Your task to perform on an android device: stop showing notifications on the lock screen Image 0: 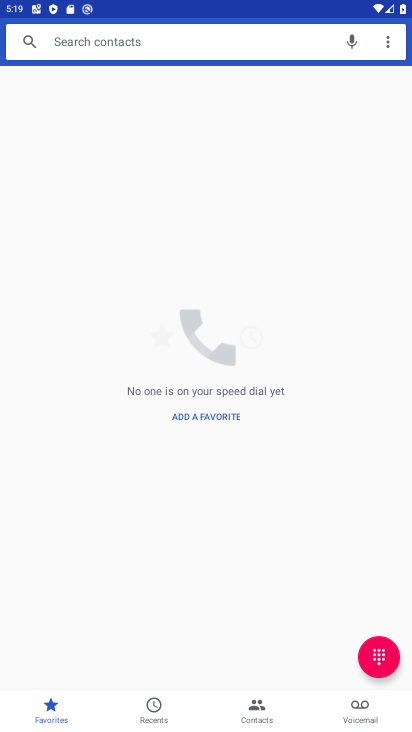
Step 0: press home button
Your task to perform on an android device: stop showing notifications on the lock screen Image 1: 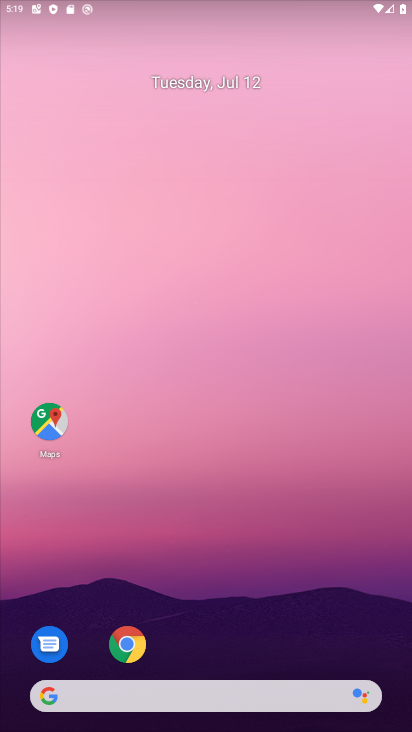
Step 1: drag from (152, 684) to (341, 77)
Your task to perform on an android device: stop showing notifications on the lock screen Image 2: 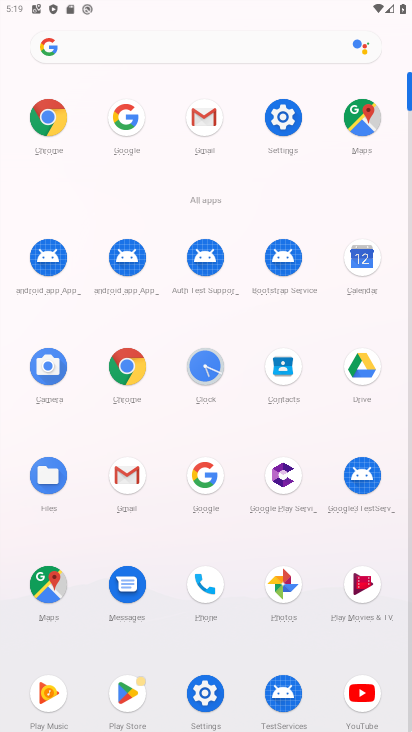
Step 2: click (200, 684)
Your task to perform on an android device: stop showing notifications on the lock screen Image 3: 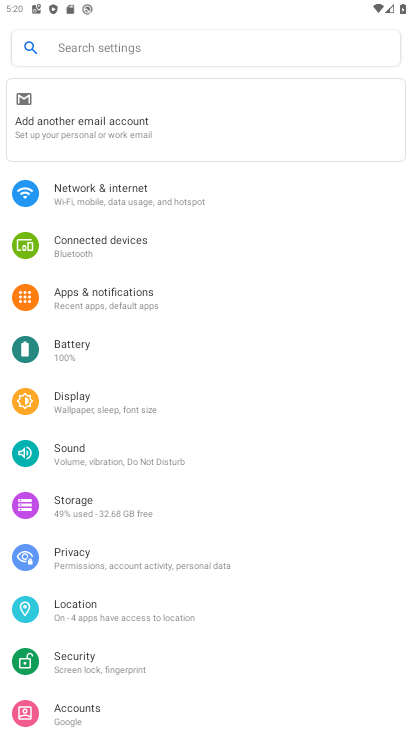
Step 3: click (61, 300)
Your task to perform on an android device: stop showing notifications on the lock screen Image 4: 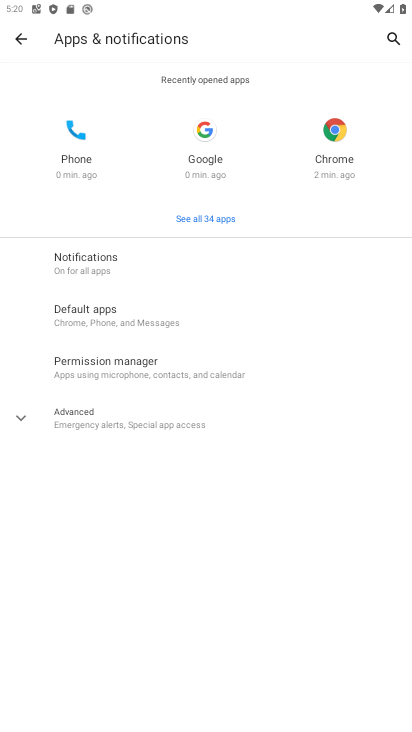
Step 4: click (67, 255)
Your task to perform on an android device: stop showing notifications on the lock screen Image 5: 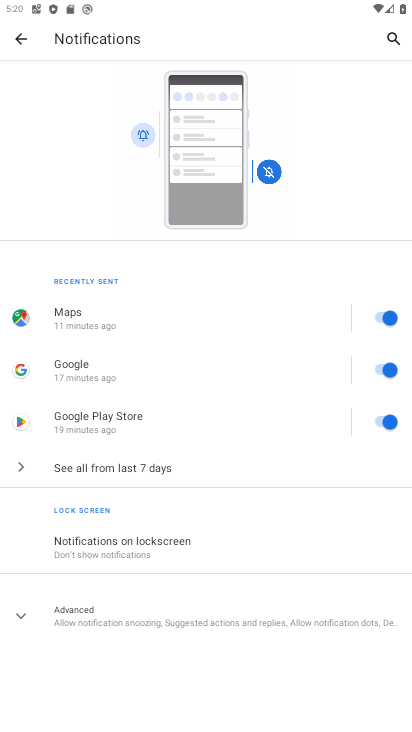
Step 5: click (120, 547)
Your task to perform on an android device: stop showing notifications on the lock screen Image 6: 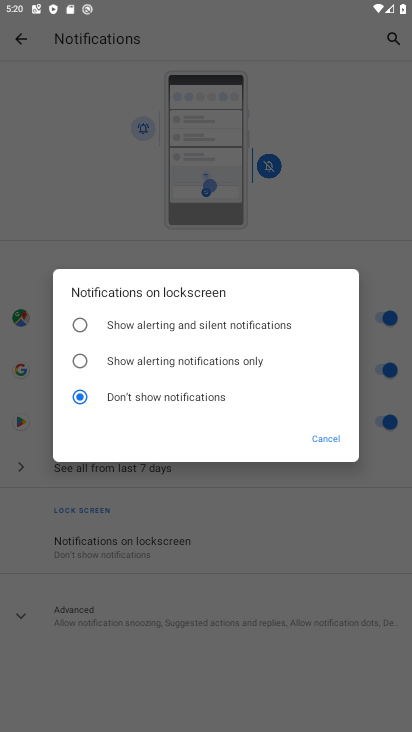
Step 6: task complete